Your task to perform on an android device: turn off priority inbox in the gmail app Image 0: 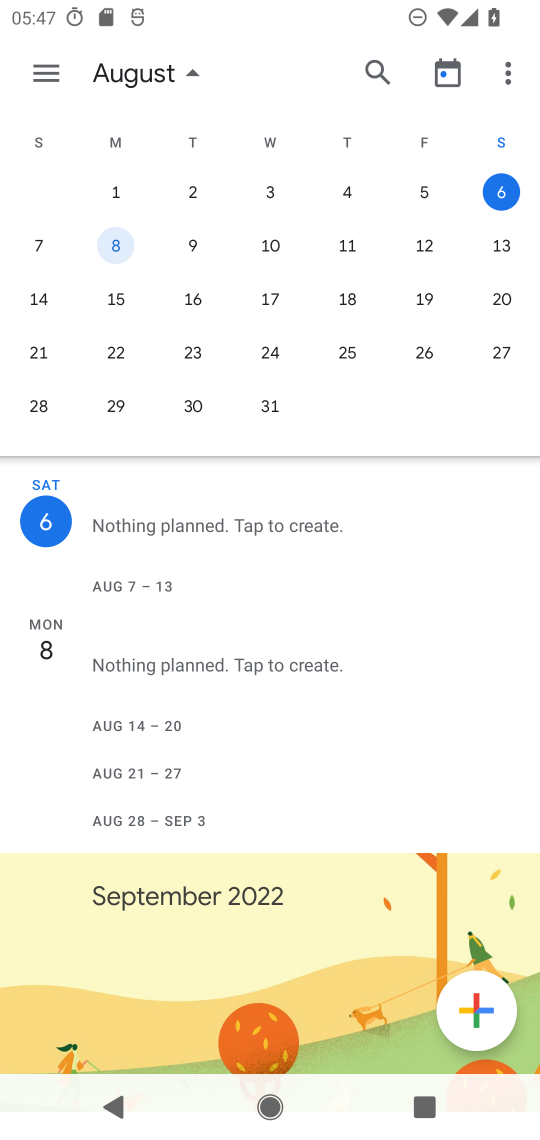
Step 0: press home button
Your task to perform on an android device: turn off priority inbox in the gmail app Image 1: 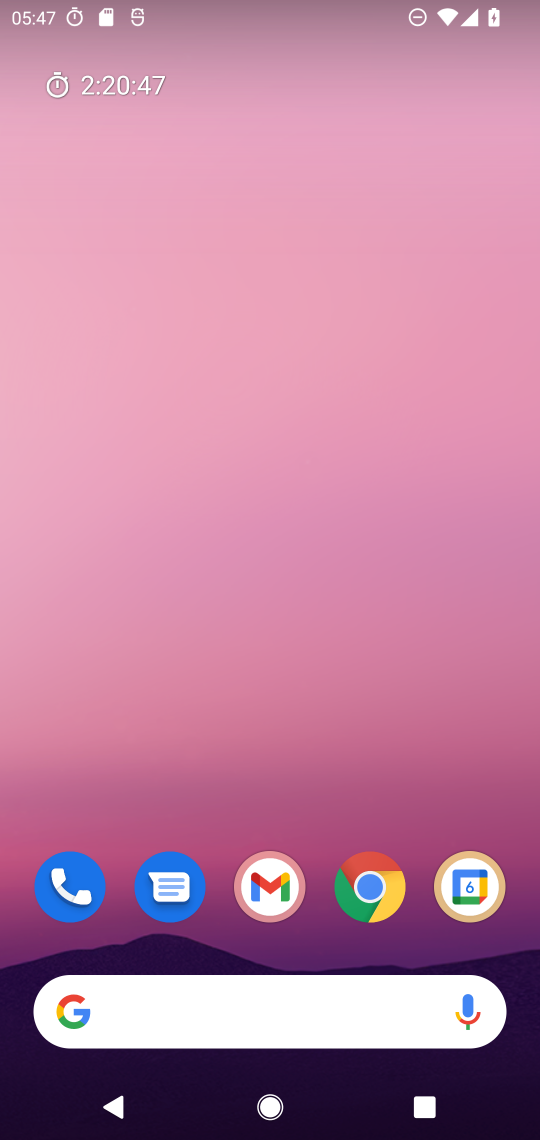
Step 1: drag from (314, 804) to (330, 395)
Your task to perform on an android device: turn off priority inbox in the gmail app Image 2: 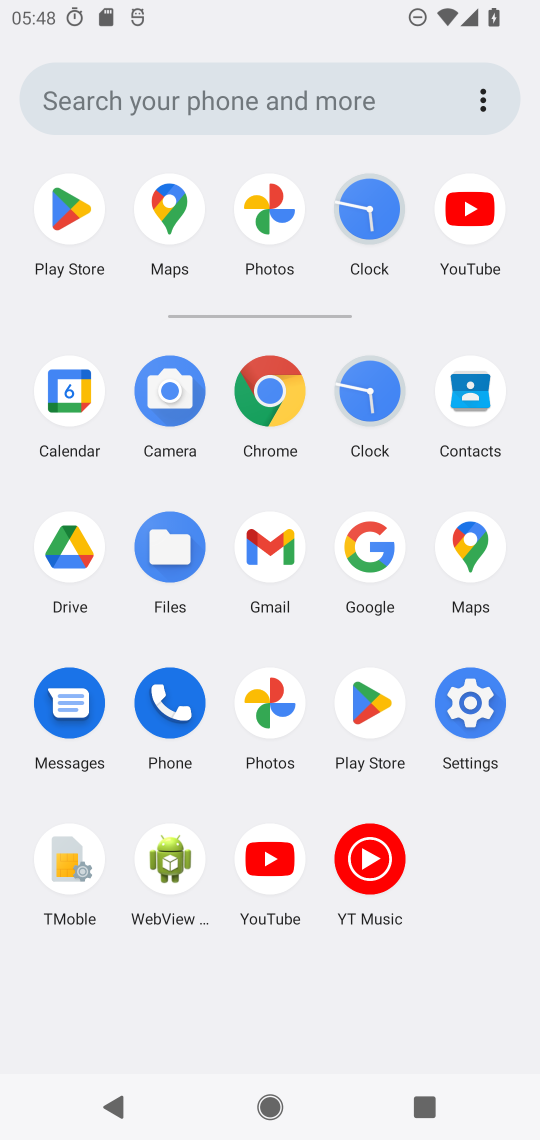
Step 2: click (270, 555)
Your task to perform on an android device: turn off priority inbox in the gmail app Image 3: 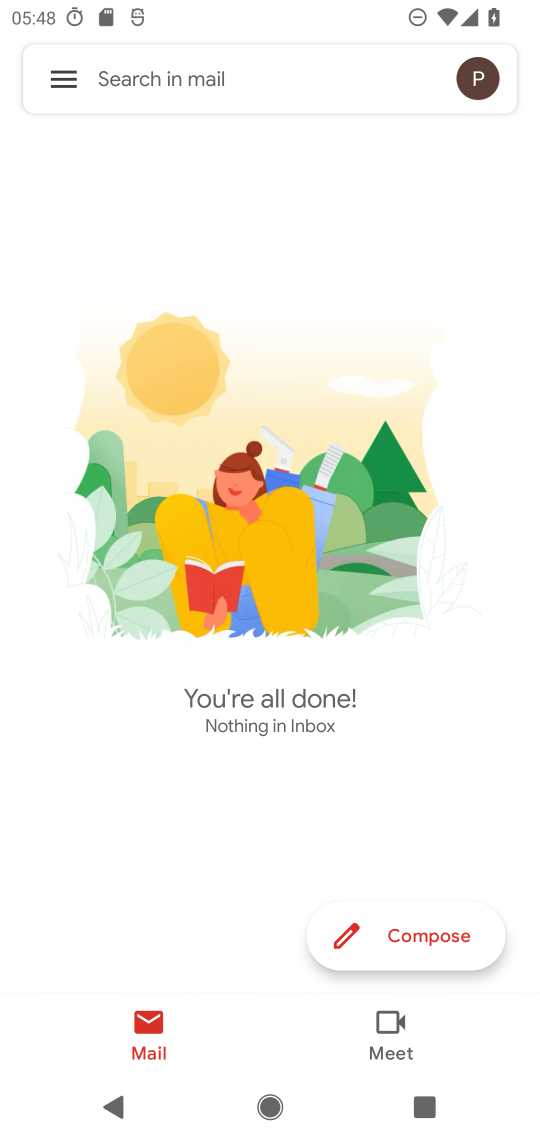
Step 3: click (61, 73)
Your task to perform on an android device: turn off priority inbox in the gmail app Image 4: 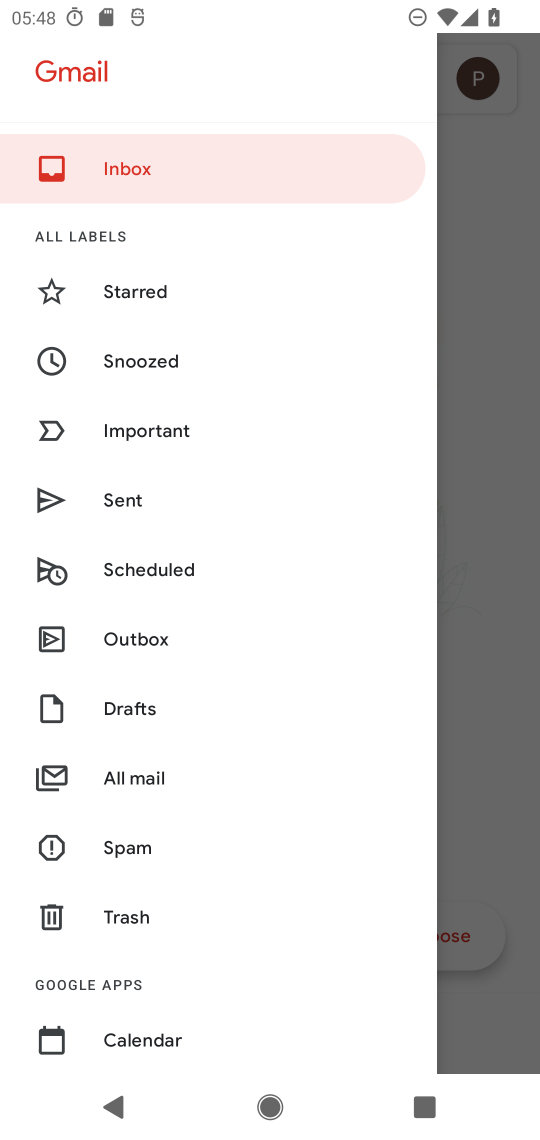
Step 4: drag from (369, 679) to (369, 577)
Your task to perform on an android device: turn off priority inbox in the gmail app Image 5: 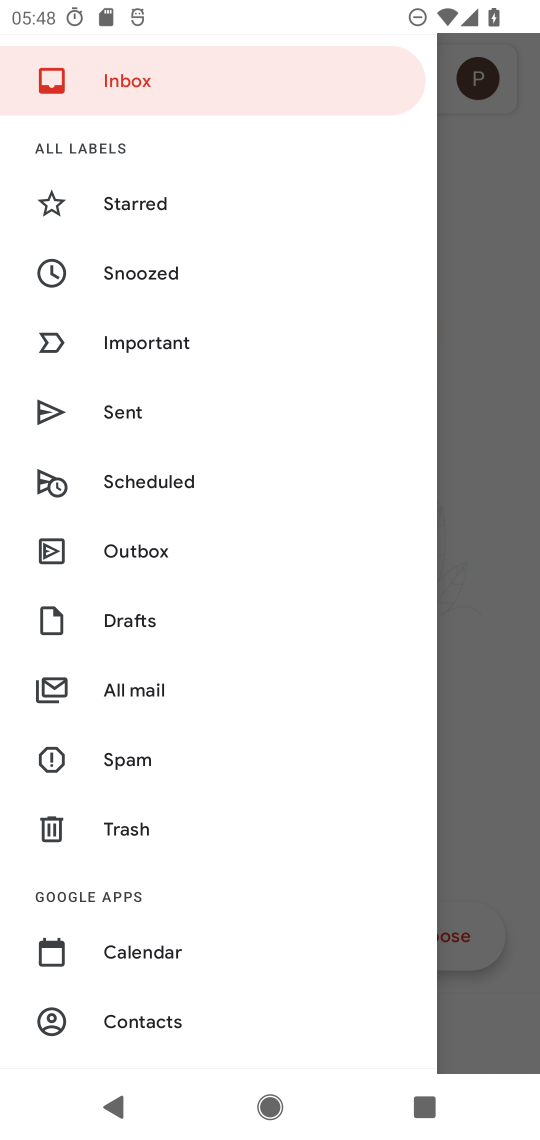
Step 5: drag from (308, 814) to (301, 635)
Your task to perform on an android device: turn off priority inbox in the gmail app Image 6: 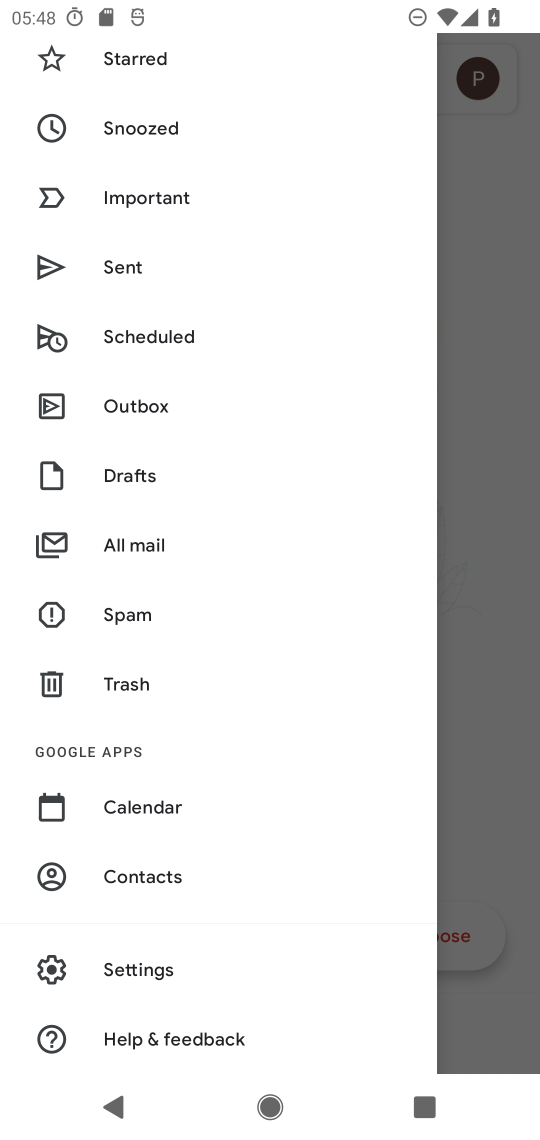
Step 6: drag from (290, 906) to (277, 718)
Your task to perform on an android device: turn off priority inbox in the gmail app Image 7: 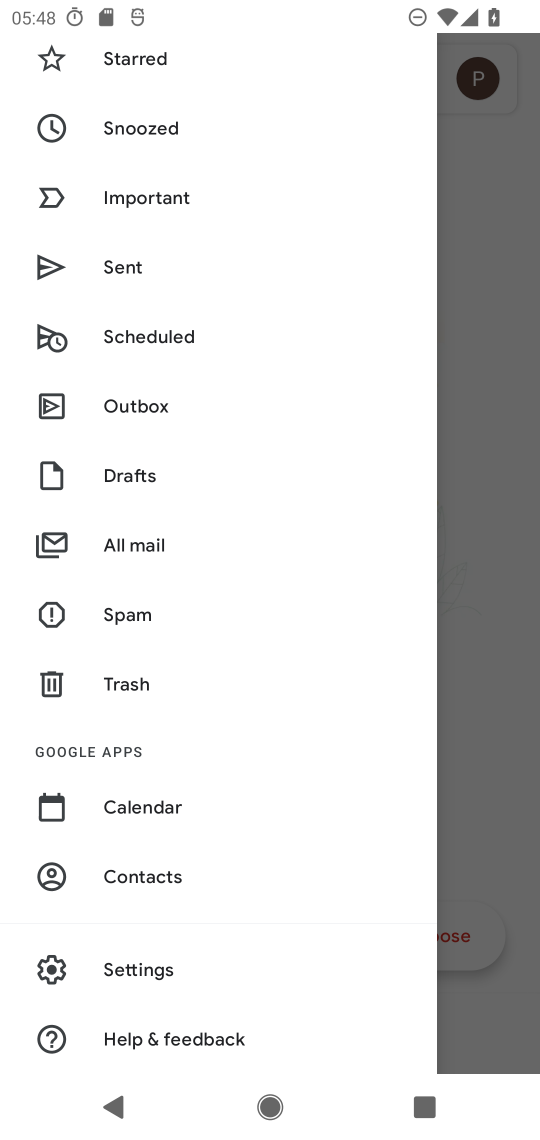
Step 7: click (270, 960)
Your task to perform on an android device: turn off priority inbox in the gmail app Image 8: 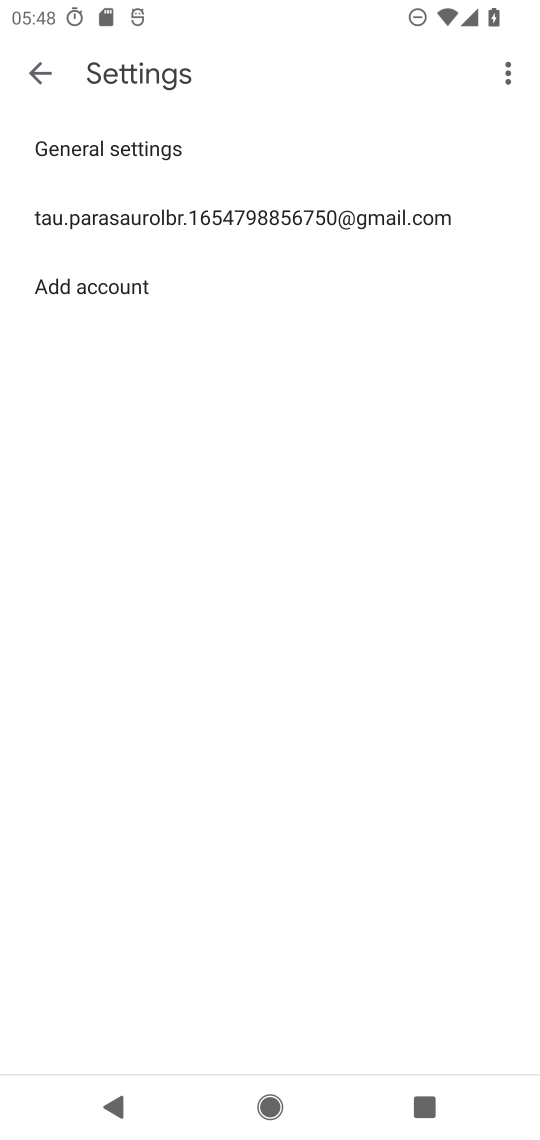
Step 8: click (204, 224)
Your task to perform on an android device: turn off priority inbox in the gmail app Image 9: 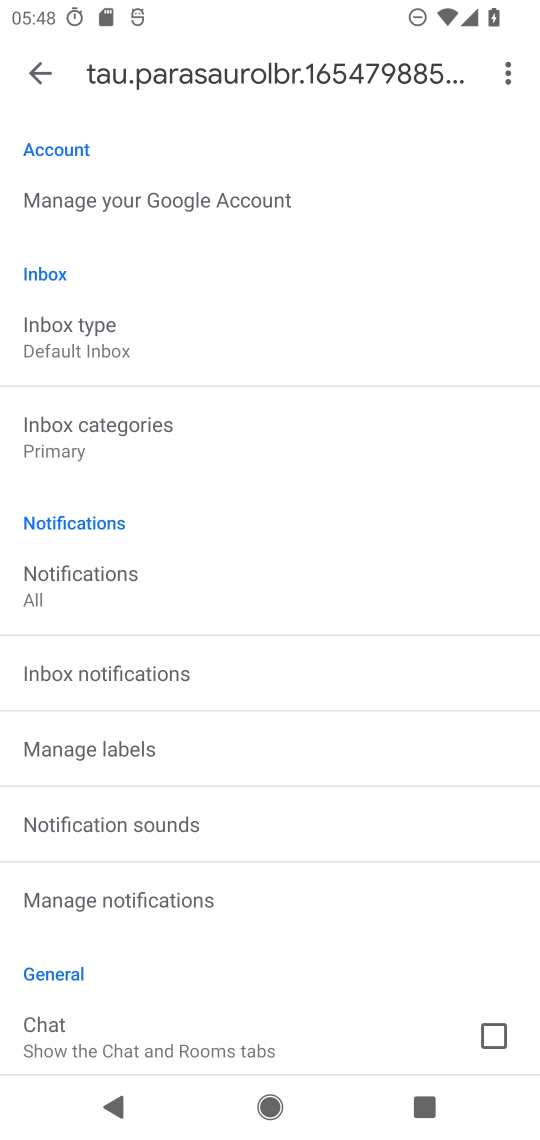
Step 9: click (89, 330)
Your task to perform on an android device: turn off priority inbox in the gmail app Image 10: 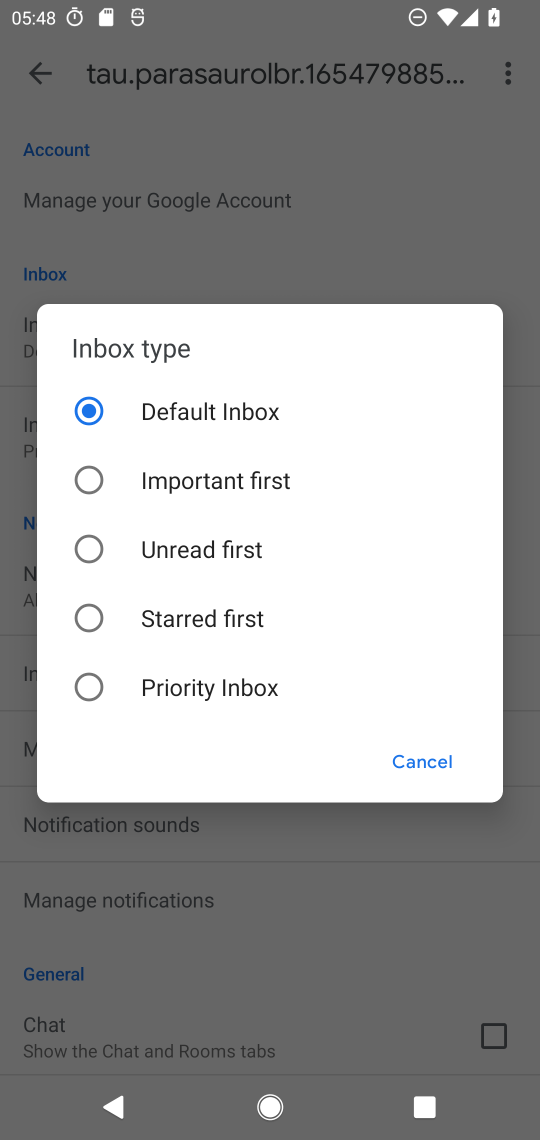
Step 10: task complete